Your task to perform on an android device: turn off wifi Image 0: 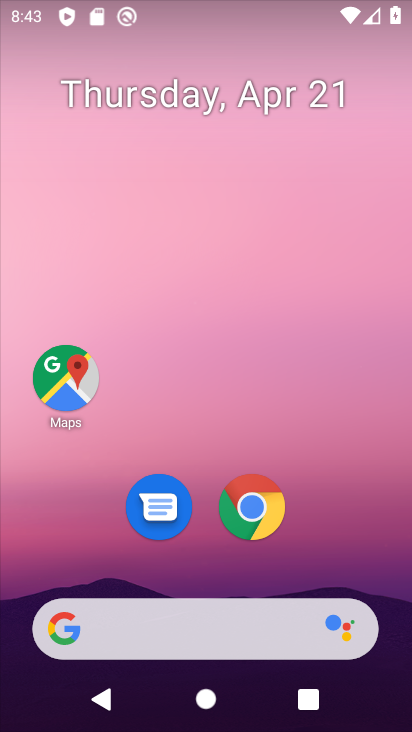
Step 0: drag from (365, 350) to (363, 85)
Your task to perform on an android device: turn off wifi Image 1: 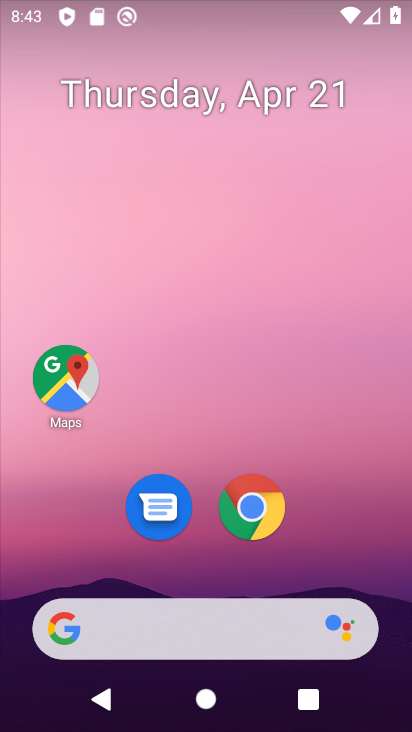
Step 1: drag from (378, 491) to (386, 131)
Your task to perform on an android device: turn off wifi Image 2: 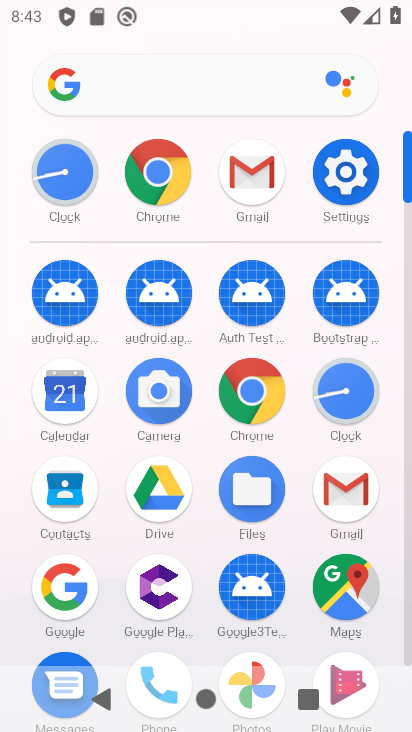
Step 2: click (349, 198)
Your task to perform on an android device: turn off wifi Image 3: 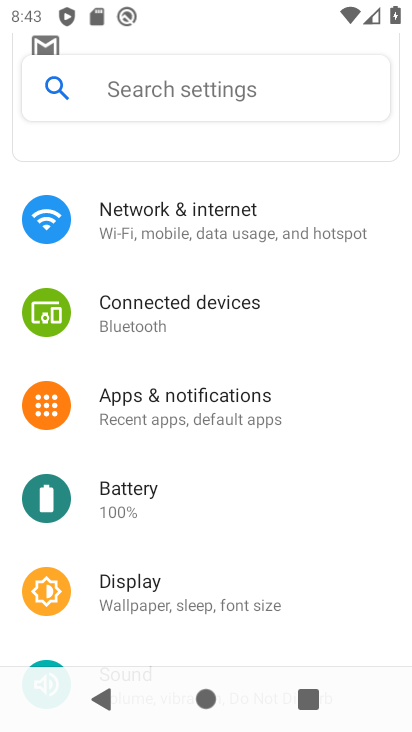
Step 3: click (331, 233)
Your task to perform on an android device: turn off wifi Image 4: 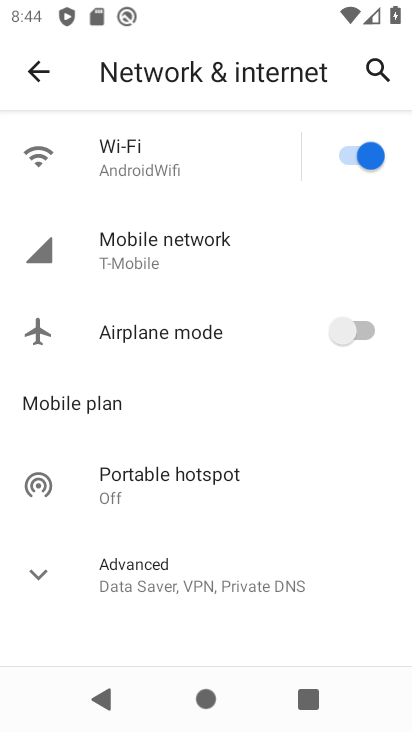
Step 4: click (349, 162)
Your task to perform on an android device: turn off wifi Image 5: 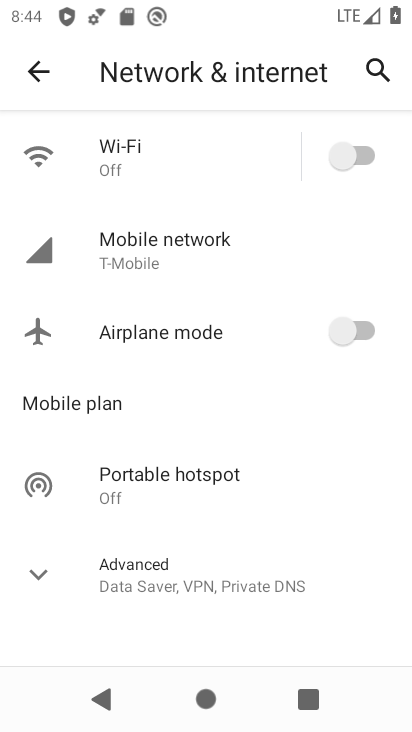
Step 5: task complete